Your task to perform on an android device: open device folders in google photos Image 0: 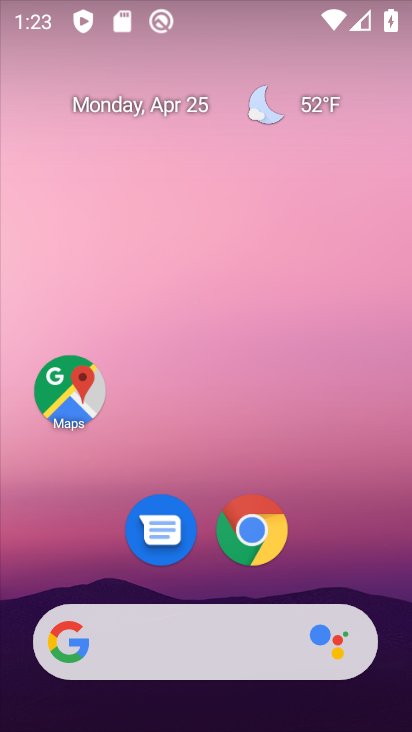
Step 0: drag from (327, 136) to (354, 174)
Your task to perform on an android device: open device folders in google photos Image 1: 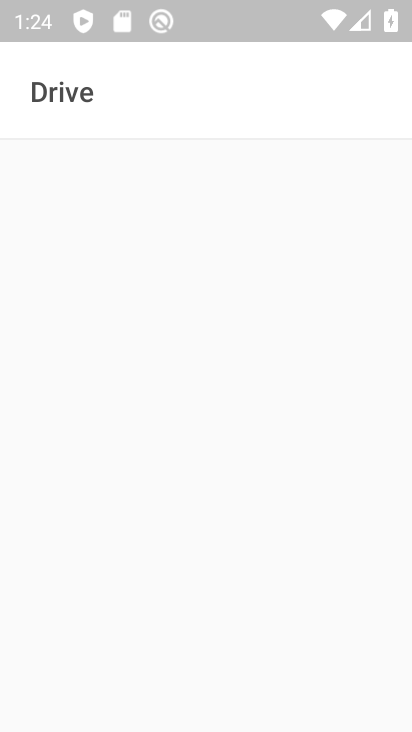
Step 1: press home button
Your task to perform on an android device: open device folders in google photos Image 2: 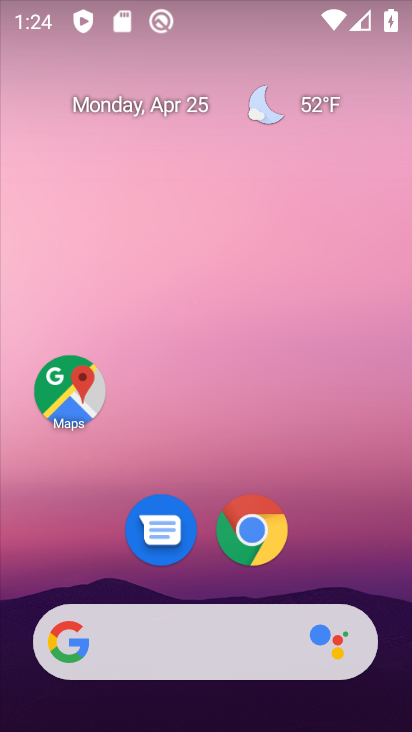
Step 2: drag from (289, 534) to (289, 131)
Your task to perform on an android device: open device folders in google photos Image 3: 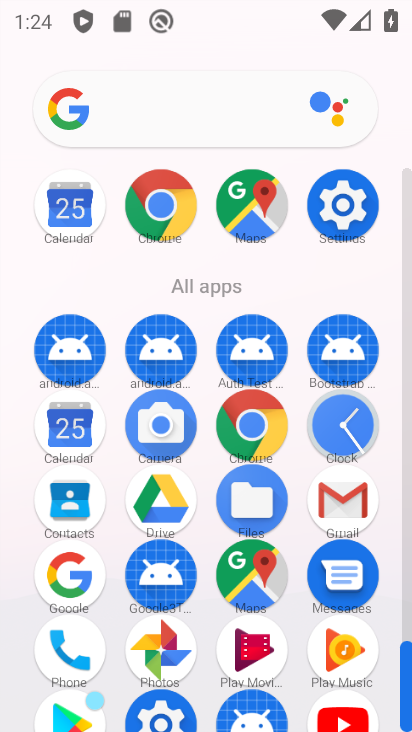
Step 3: click (292, 340)
Your task to perform on an android device: open device folders in google photos Image 4: 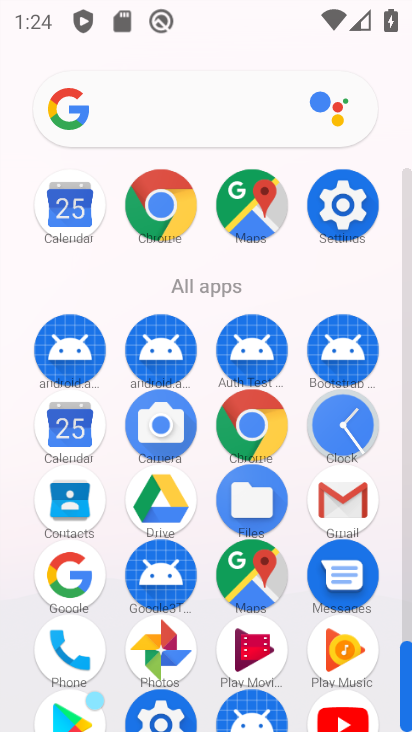
Step 4: drag from (300, 613) to (306, 295)
Your task to perform on an android device: open device folders in google photos Image 5: 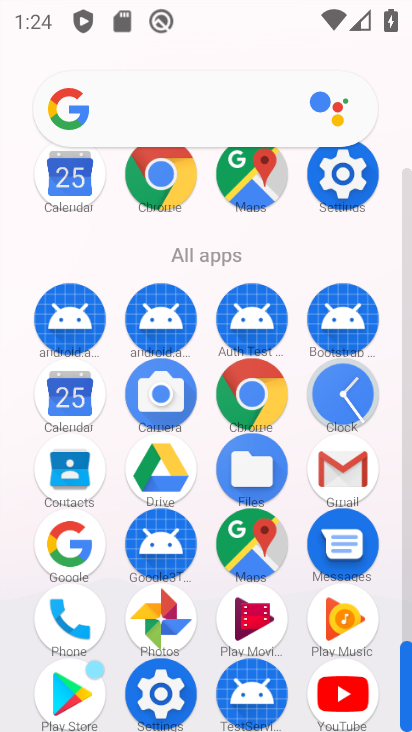
Step 5: click (161, 612)
Your task to perform on an android device: open device folders in google photos Image 6: 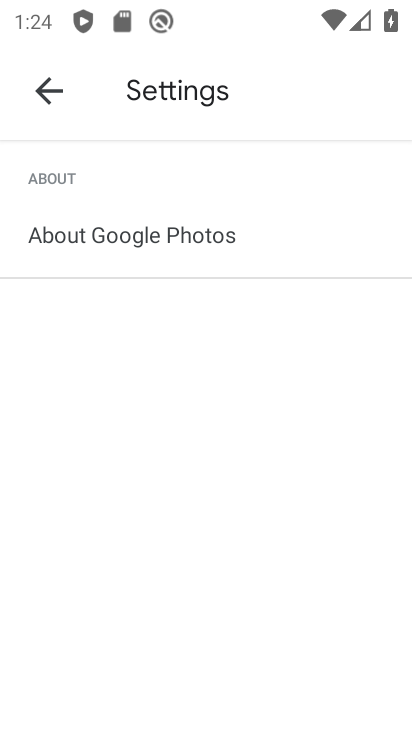
Step 6: click (43, 107)
Your task to perform on an android device: open device folders in google photos Image 7: 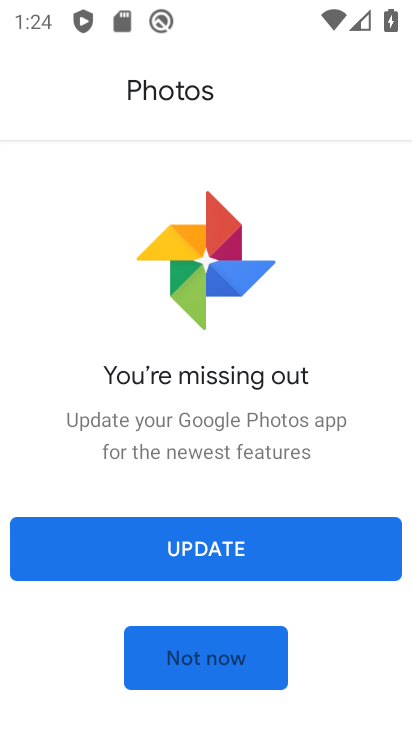
Step 7: click (181, 538)
Your task to perform on an android device: open device folders in google photos Image 8: 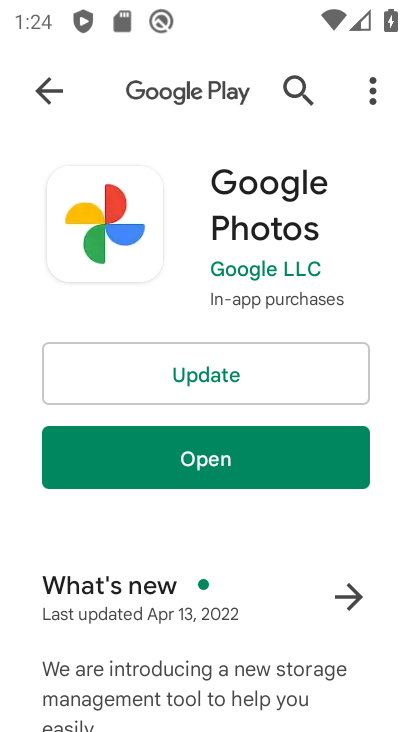
Step 8: drag from (181, 538) to (82, 390)
Your task to perform on an android device: open device folders in google photos Image 9: 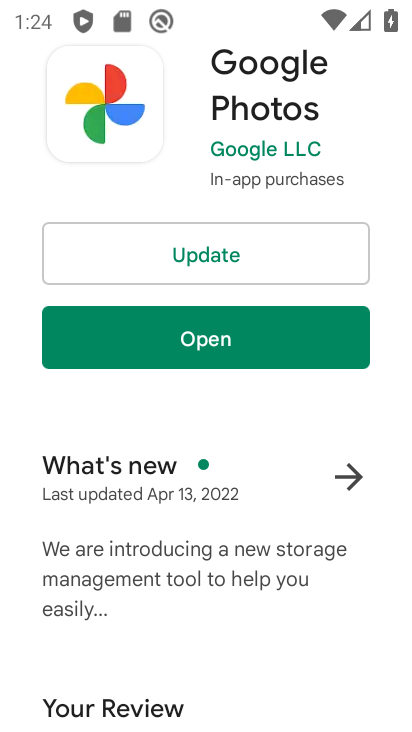
Step 9: click (305, 216)
Your task to perform on an android device: open device folders in google photos Image 10: 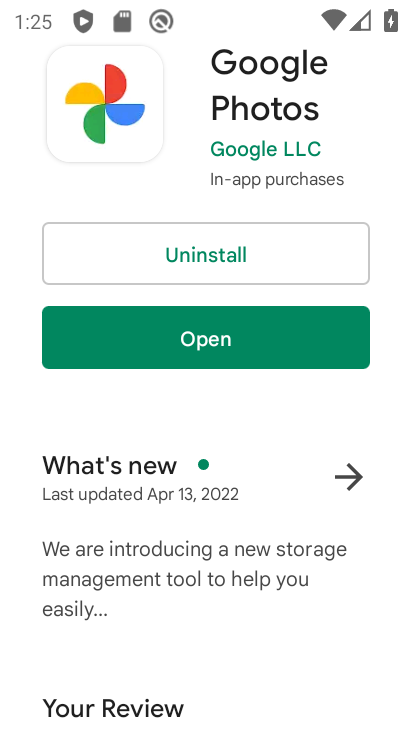
Step 10: click (270, 323)
Your task to perform on an android device: open device folders in google photos Image 11: 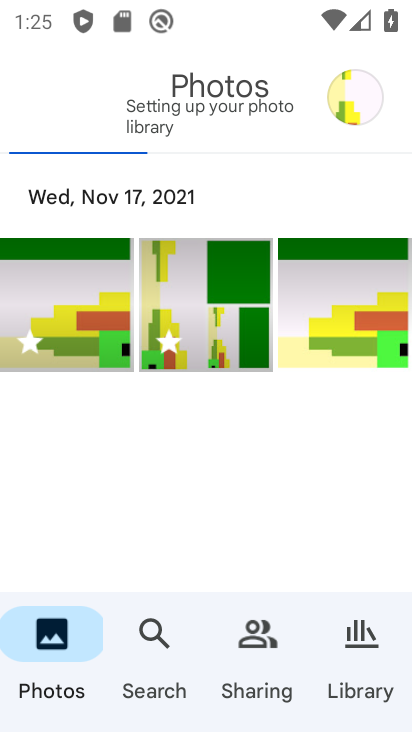
Step 11: task complete